Your task to perform on an android device: turn off data saver in the chrome app Image 0: 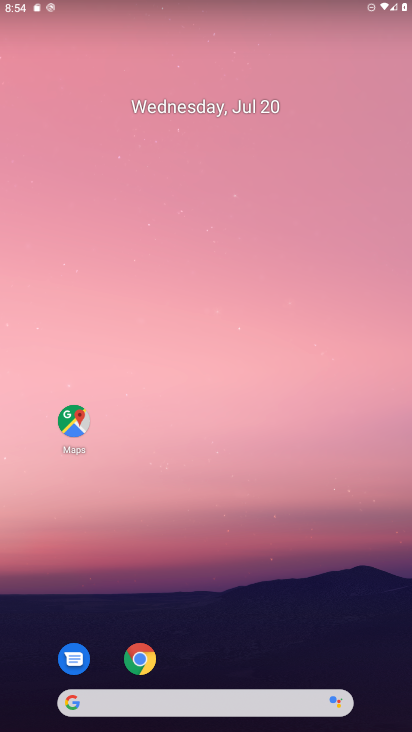
Step 0: drag from (252, 337) to (203, 135)
Your task to perform on an android device: turn off data saver in the chrome app Image 1: 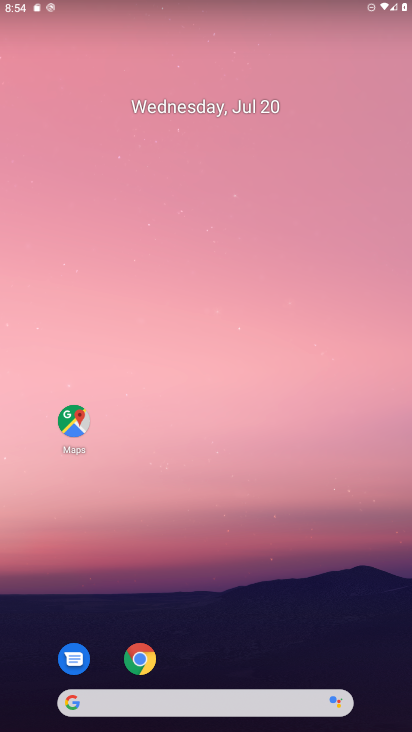
Step 1: drag from (216, 649) to (251, 108)
Your task to perform on an android device: turn off data saver in the chrome app Image 2: 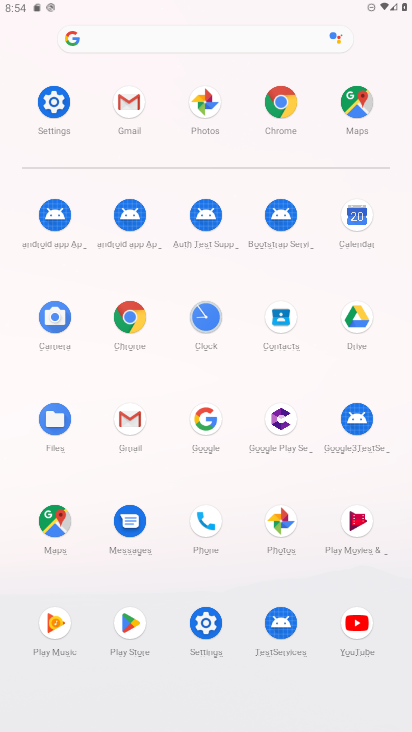
Step 2: click (138, 312)
Your task to perform on an android device: turn off data saver in the chrome app Image 3: 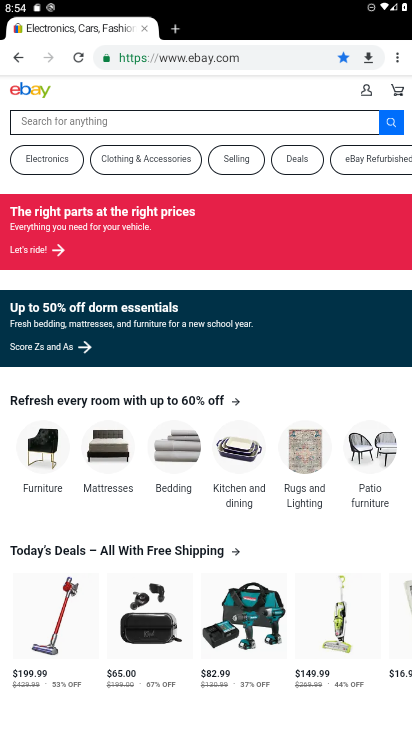
Step 3: drag from (395, 60) to (280, 385)
Your task to perform on an android device: turn off data saver in the chrome app Image 4: 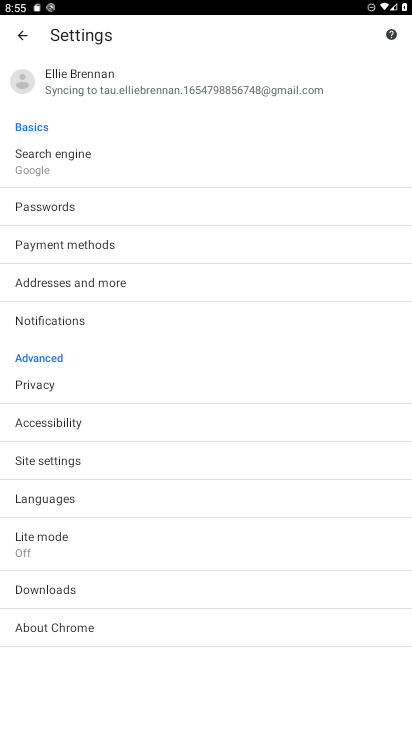
Step 4: click (18, 538)
Your task to perform on an android device: turn off data saver in the chrome app Image 5: 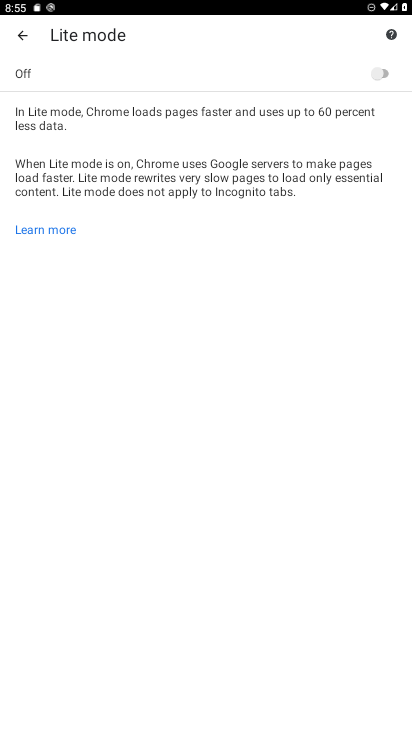
Step 5: task complete